Your task to perform on an android device: Do I have any events today? Image 0: 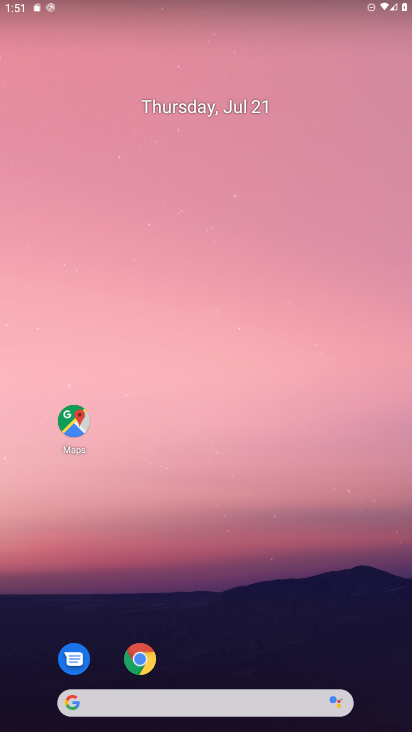
Step 0: task impossible